Your task to perform on an android device: turn off javascript in the chrome app Image 0: 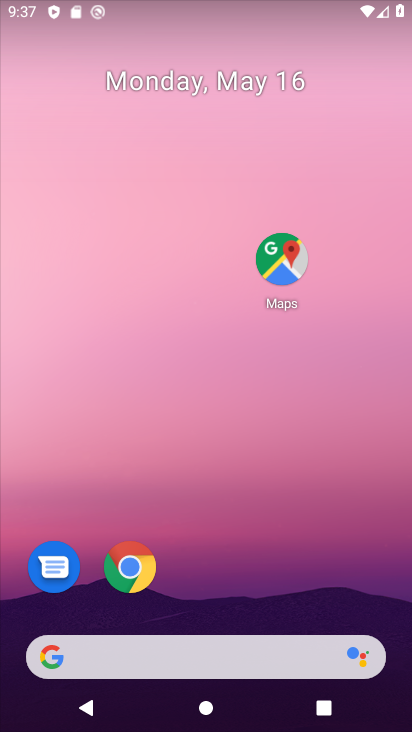
Step 0: click (129, 567)
Your task to perform on an android device: turn off javascript in the chrome app Image 1: 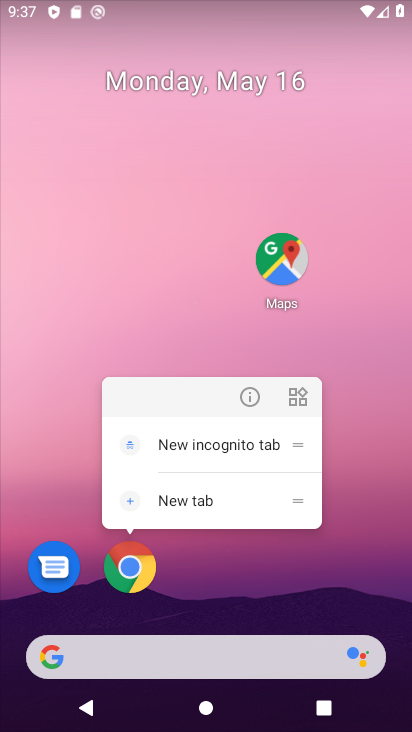
Step 1: click (131, 565)
Your task to perform on an android device: turn off javascript in the chrome app Image 2: 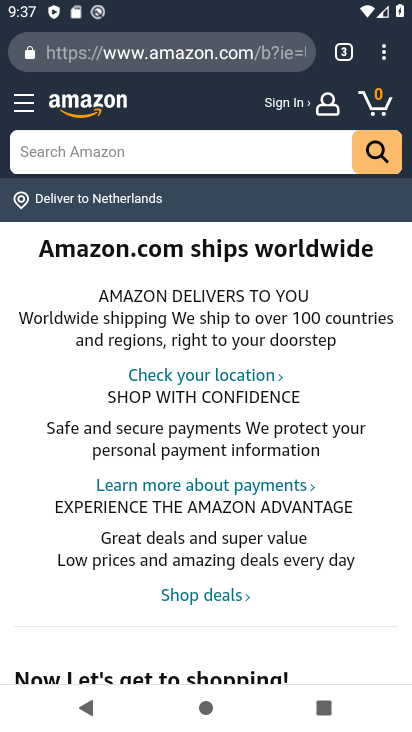
Step 2: click (381, 54)
Your task to perform on an android device: turn off javascript in the chrome app Image 3: 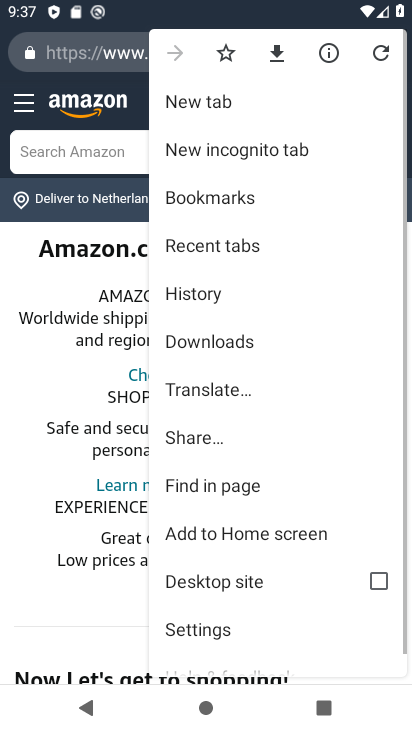
Step 3: click (225, 629)
Your task to perform on an android device: turn off javascript in the chrome app Image 4: 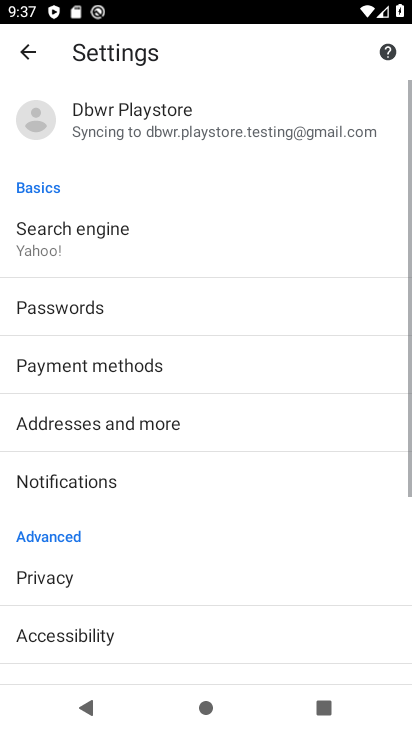
Step 4: drag from (218, 570) to (178, 192)
Your task to perform on an android device: turn off javascript in the chrome app Image 5: 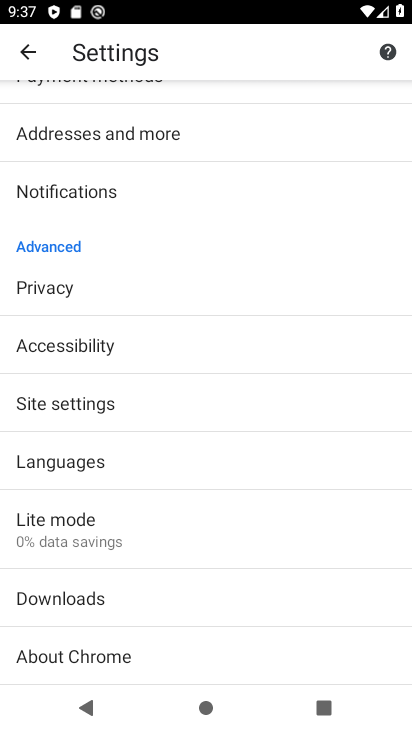
Step 5: click (98, 398)
Your task to perform on an android device: turn off javascript in the chrome app Image 6: 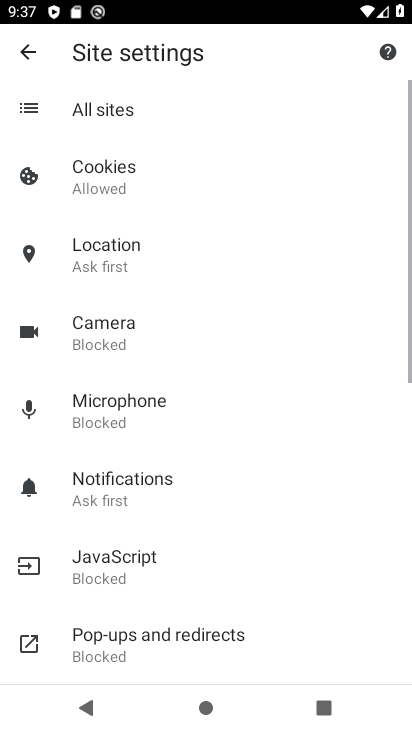
Step 6: drag from (182, 617) to (186, 438)
Your task to perform on an android device: turn off javascript in the chrome app Image 7: 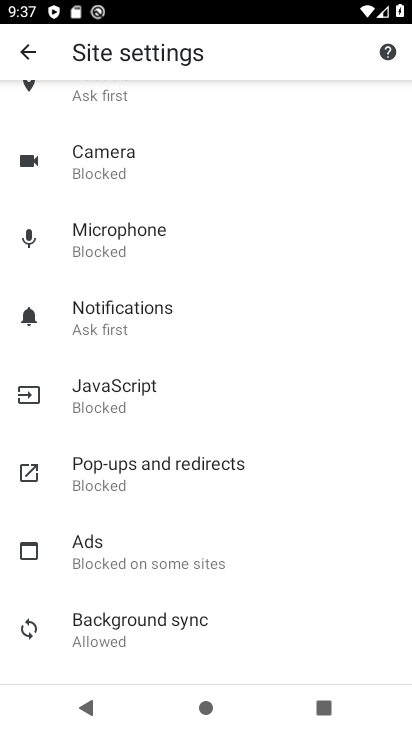
Step 7: click (160, 400)
Your task to perform on an android device: turn off javascript in the chrome app Image 8: 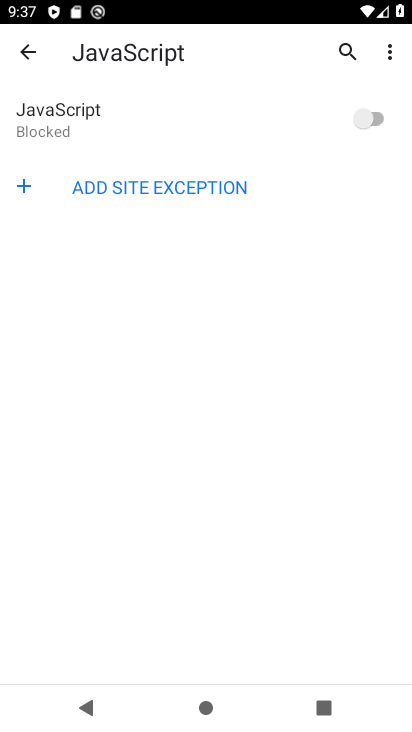
Step 8: task complete